Your task to perform on an android device: Check the weather Image 0: 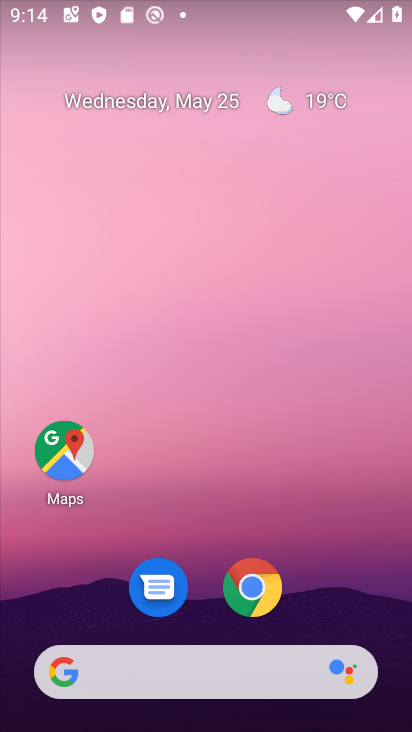
Step 0: click (323, 98)
Your task to perform on an android device: Check the weather Image 1: 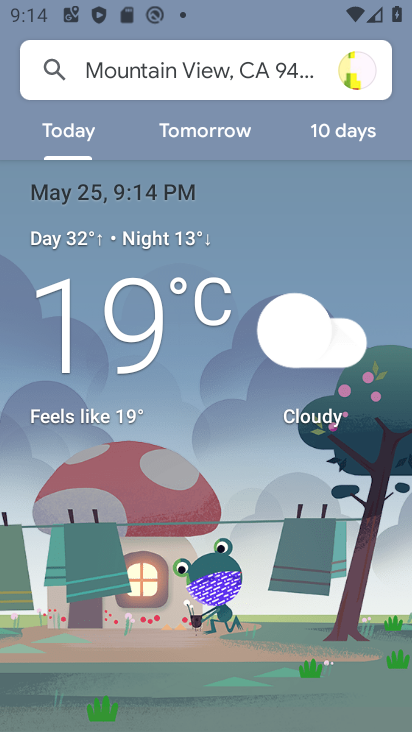
Step 1: task complete